Your task to perform on an android device: clear history in the chrome app Image 0: 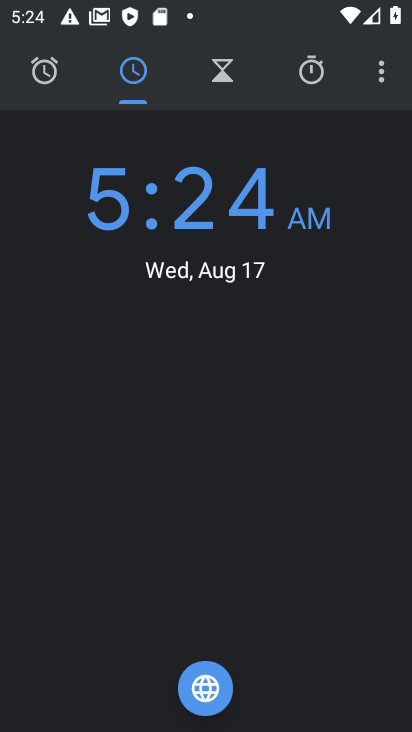
Step 0: press home button
Your task to perform on an android device: clear history in the chrome app Image 1: 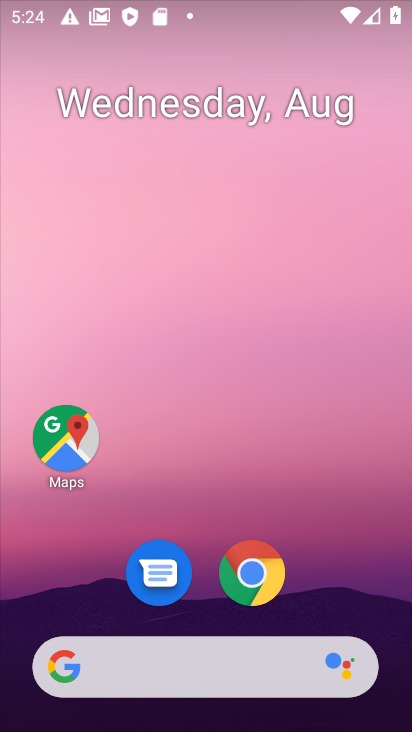
Step 1: drag from (292, 611) to (309, 0)
Your task to perform on an android device: clear history in the chrome app Image 2: 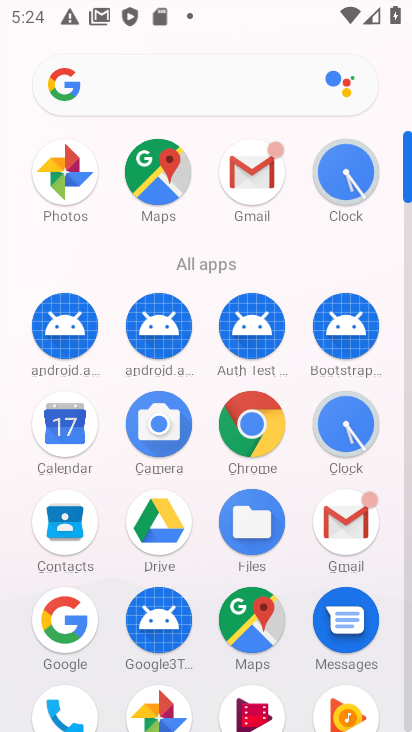
Step 2: click (262, 432)
Your task to perform on an android device: clear history in the chrome app Image 3: 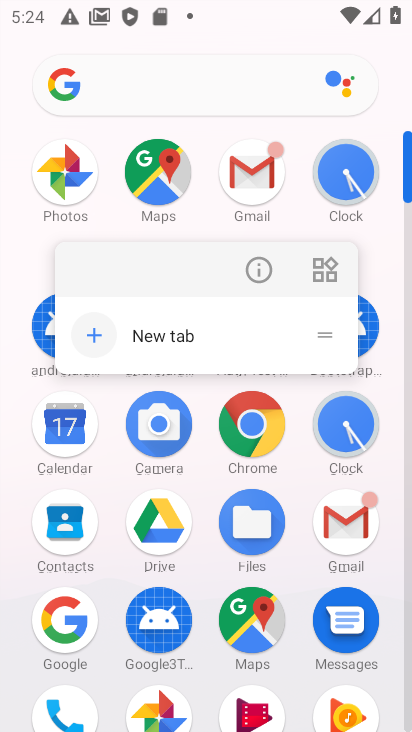
Step 3: click (259, 428)
Your task to perform on an android device: clear history in the chrome app Image 4: 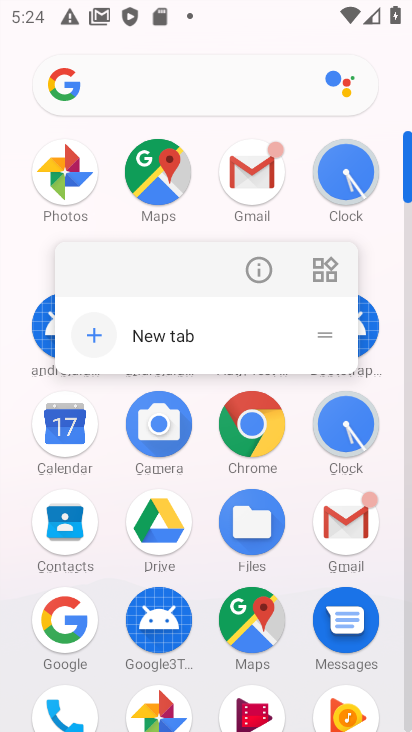
Step 4: click (258, 422)
Your task to perform on an android device: clear history in the chrome app Image 5: 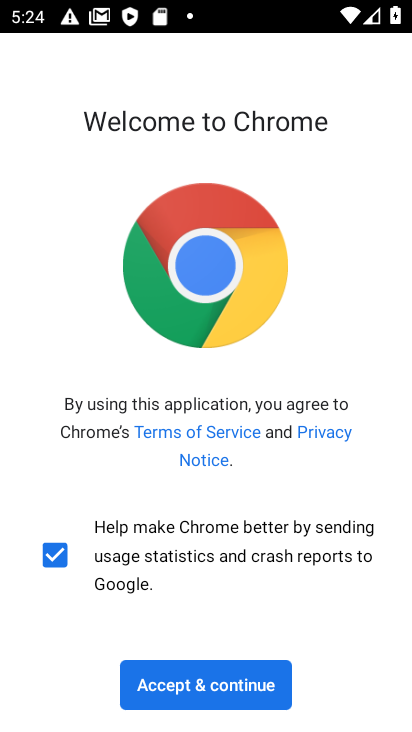
Step 5: click (235, 679)
Your task to perform on an android device: clear history in the chrome app Image 6: 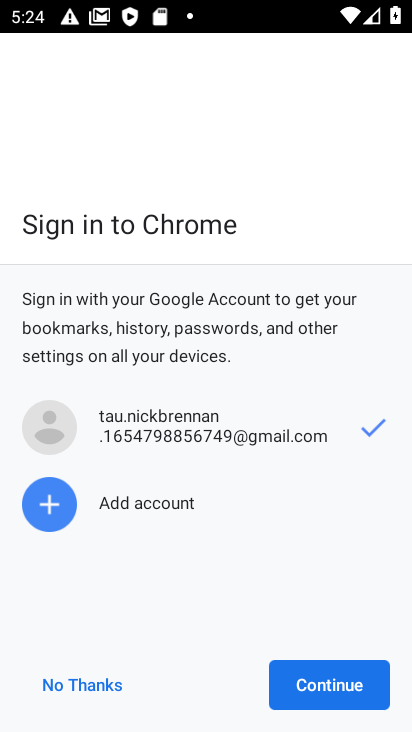
Step 6: click (93, 685)
Your task to perform on an android device: clear history in the chrome app Image 7: 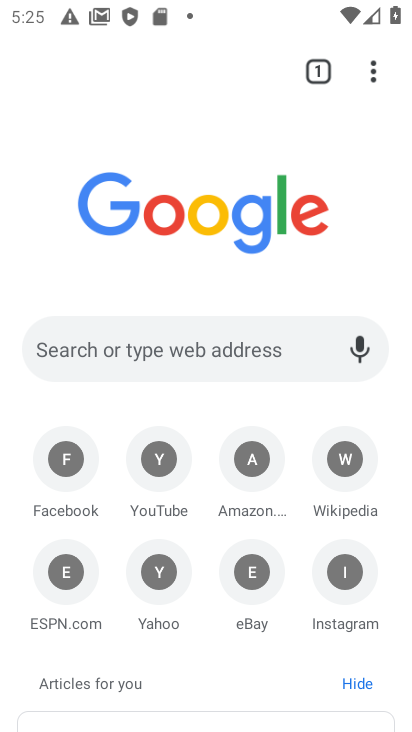
Step 7: task complete